Your task to perform on an android device: refresh tabs in the chrome app Image 0: 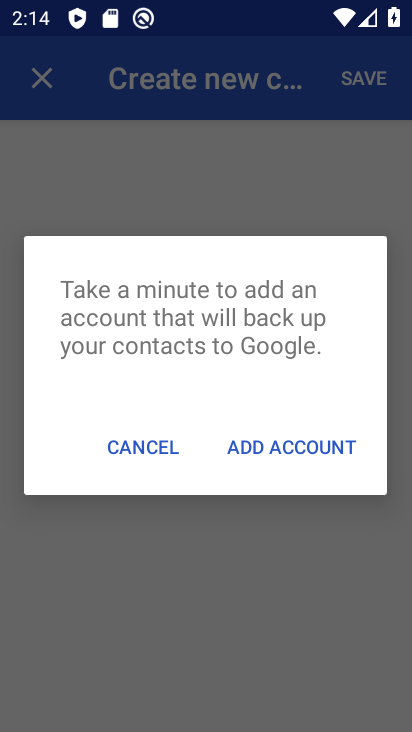
Step 0: press home button
Your task to perform on an android device: refresh tabs in the chrome app Image 1: 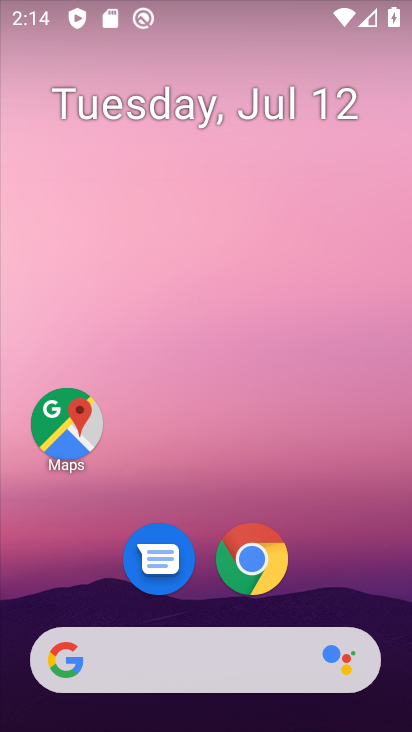
Step 1: drag from (359, 519) to (377, 226)
Your task to perform on an android device: refresh tabs in the chrome app Image 2: 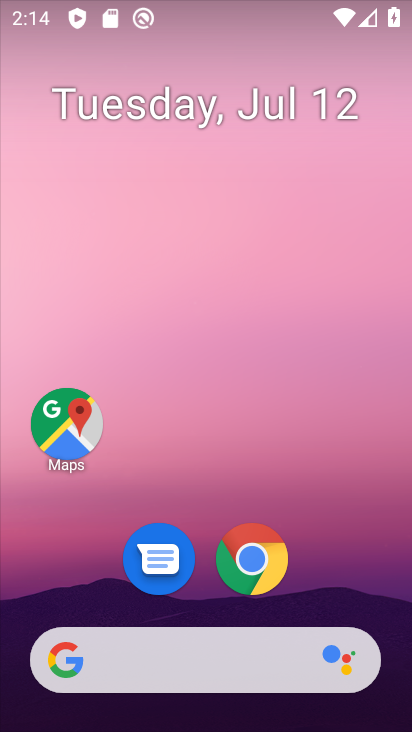
Step 2: drag from (368, 571) to (370, 145)
Your task to perform on an android device: refresh tabs in the chrome app Image 3: 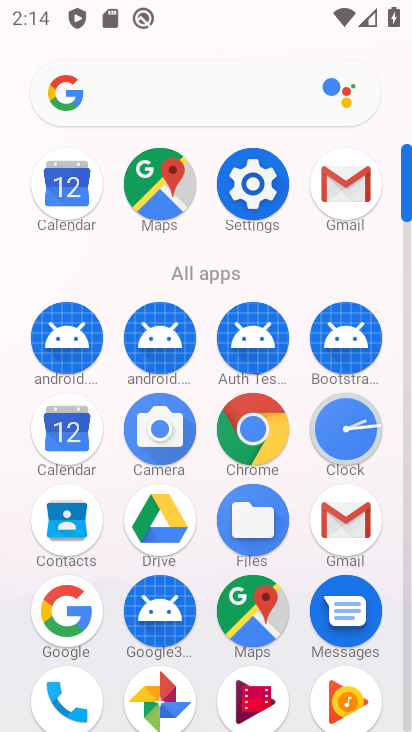
Step 3: click (261, 432)
Your task to perform on an android device: refresh tabs in the chrome app Image 4: 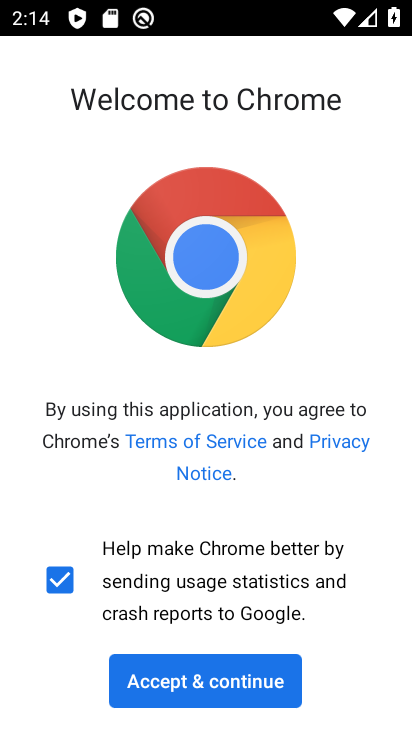
Step 4: click (260, 675)
Your task to perform on an android device: refresh tabs in the chrome app Image 5: 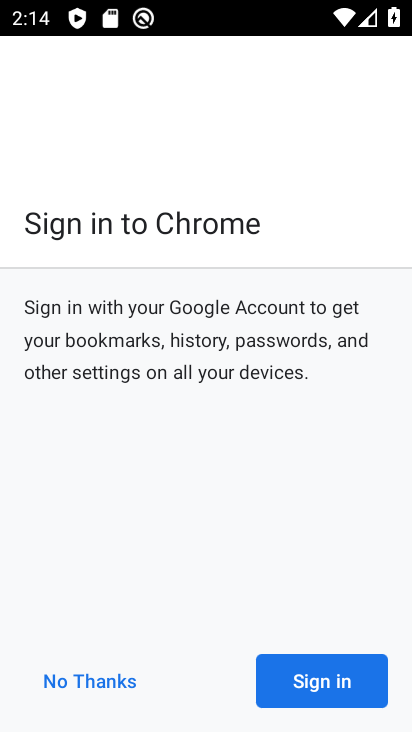
Step 5: click (133, 689)
Your task to perform on an android device: refresh tabs in the chrome app Image 6: 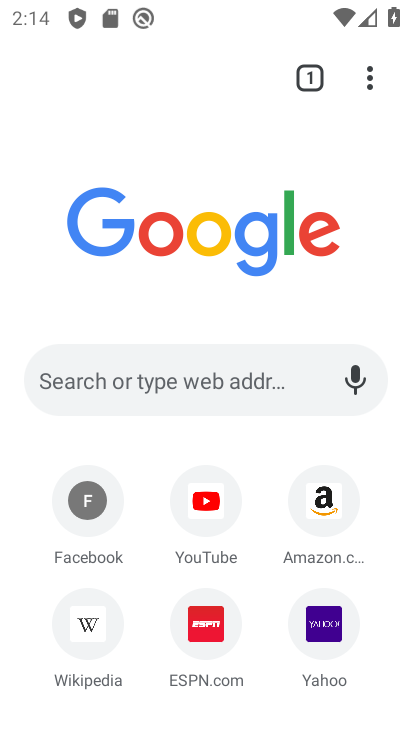
Step 6: click (369, 86)
Your task to perform on an android device: refresh tabs in the chrome app Image 7: 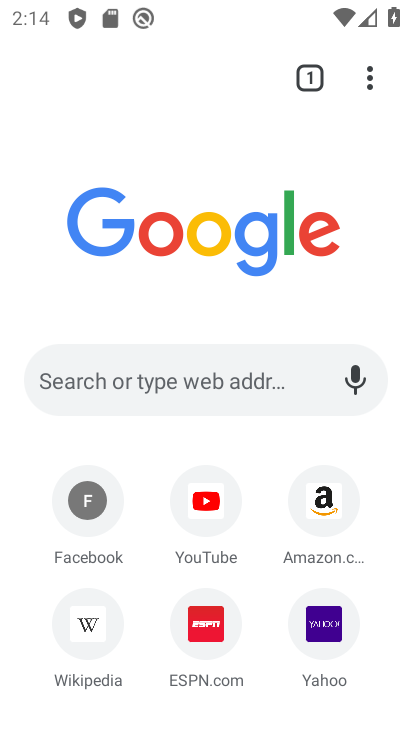
Step 7: click (370, 84)
Your task to perform on an android device: refresh tabs in the chrome app Image 8: 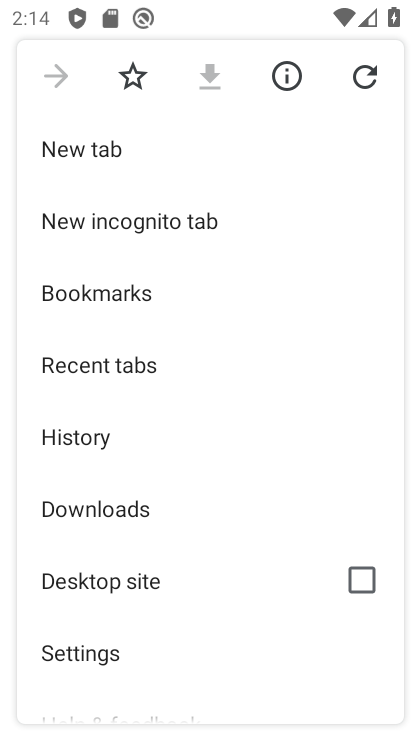
Step 8: click (361, 90)
Your task to perform on an android device: refresh tabs in the chrome app Image 9: 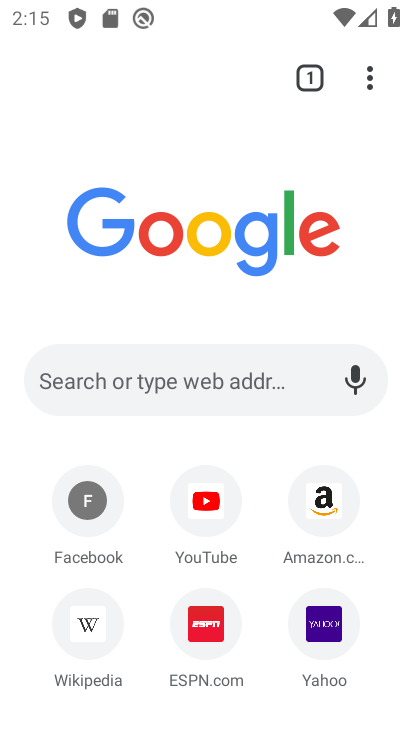
Step 9: task complete